Your task to perform on an android device: Search for vegetarian restaurants on Maps Image 0: 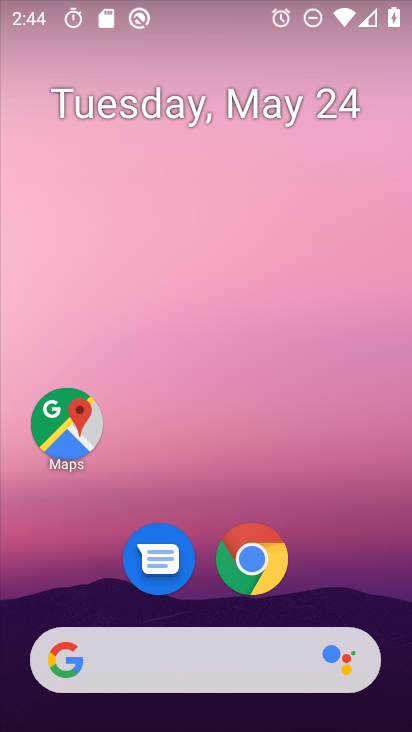
Step 0: click (51, 423)
Your task to perform on an android device: Search for vegetarian restaurants on Maps Image 1: 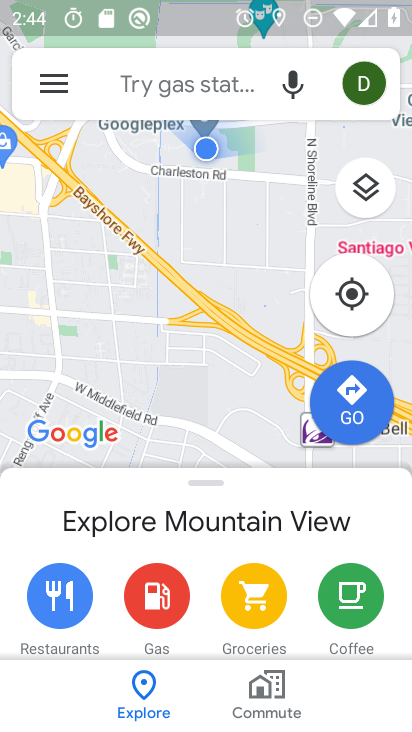
Step 1: click (129, 79)
Your task to perform on an android device: Search for vegetarian restaurants on Maps Image 2: 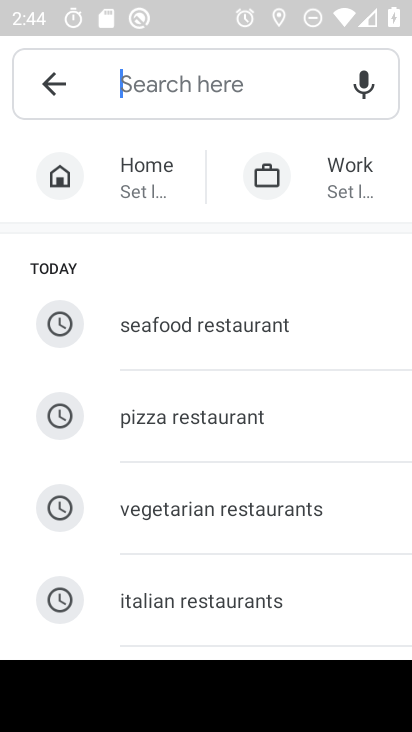
Step 2: type "vegetarian restaurants"
Your task to perform on an android device: Search for vegetarian restaurants on Maps Image 3: 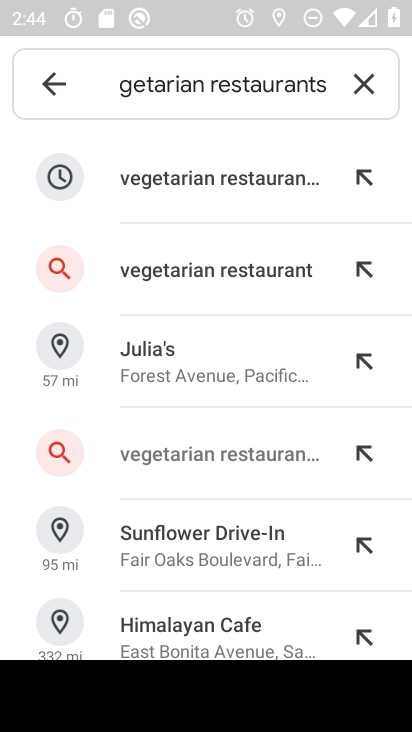
Step 3: click (192, 266)
Your task to perform on an android device: Search for vegetarian restaurants on Maps Image 4: 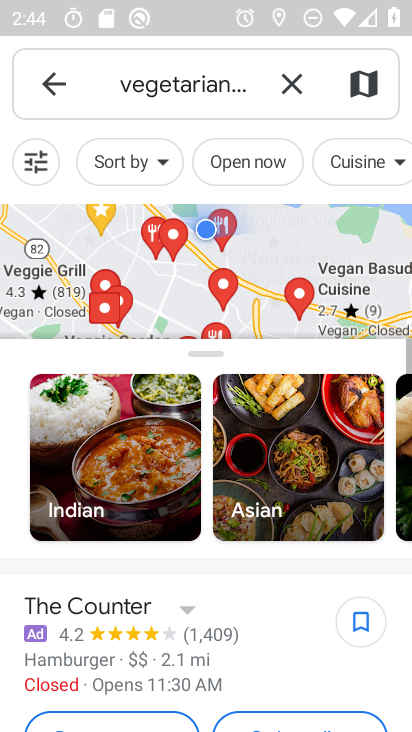
Step 4: task complete